Your task to perform on an android device: What is the capital of France? Image 0: 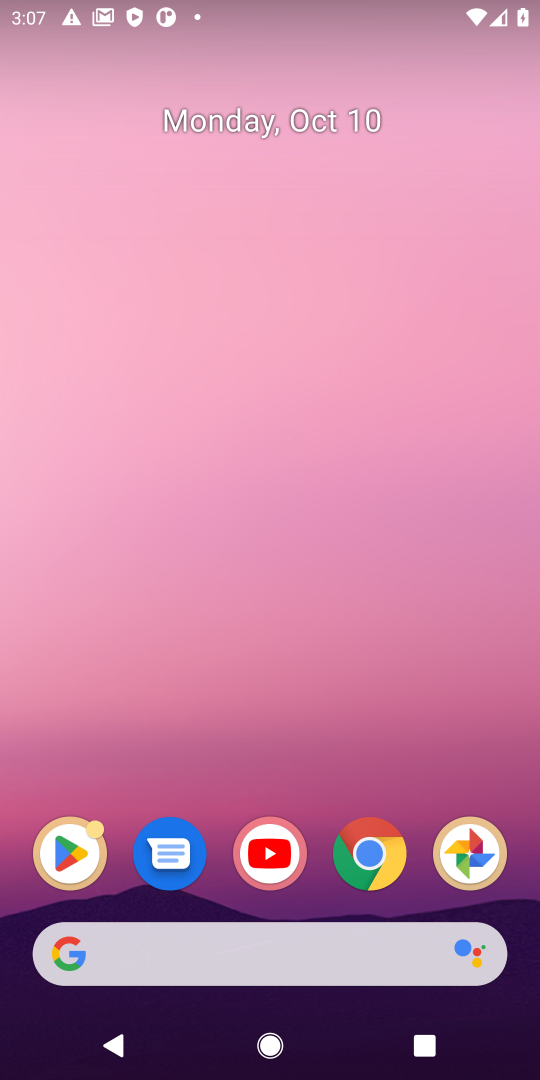
Step 0: click (375, 857)
Your task to perform on an android device: What is the capital of France? Image 1: 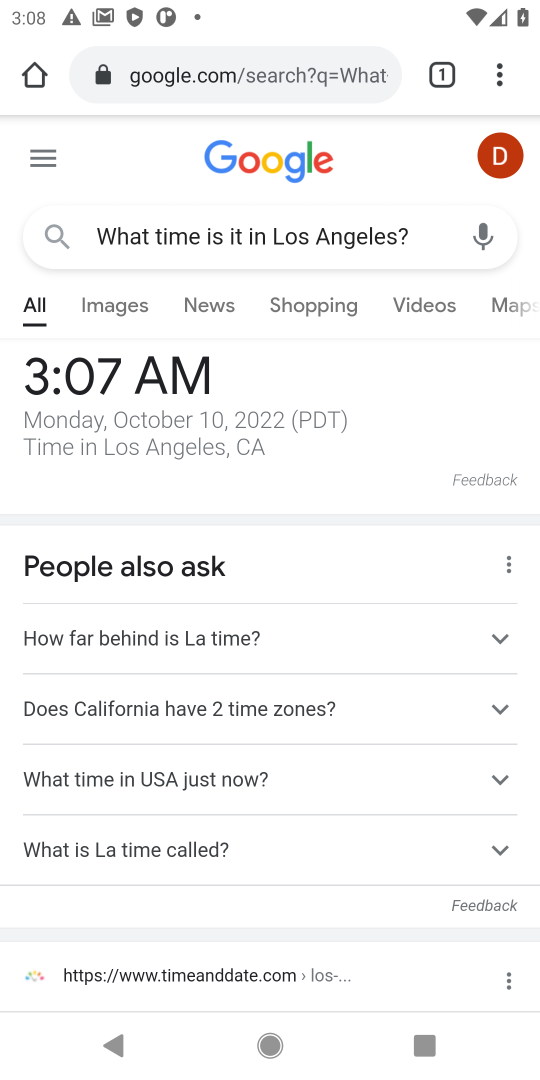
Step 1: click (269, 75)
Your task to perform on an android device: What is the capital of France? Image 2: 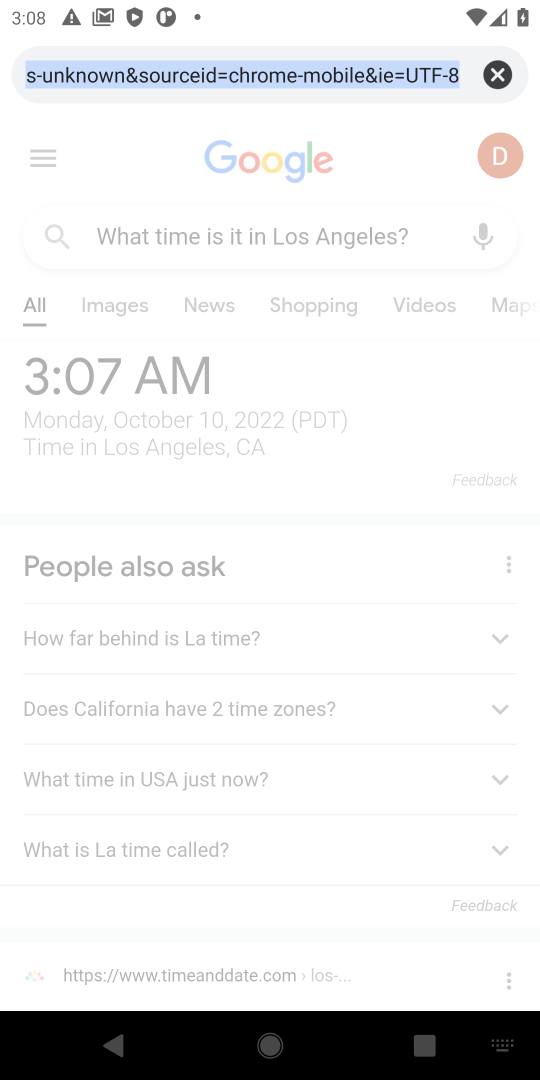
Step 2: type "capital of france"
Your task to perform on an android device: What is the capital of France? Image 3: 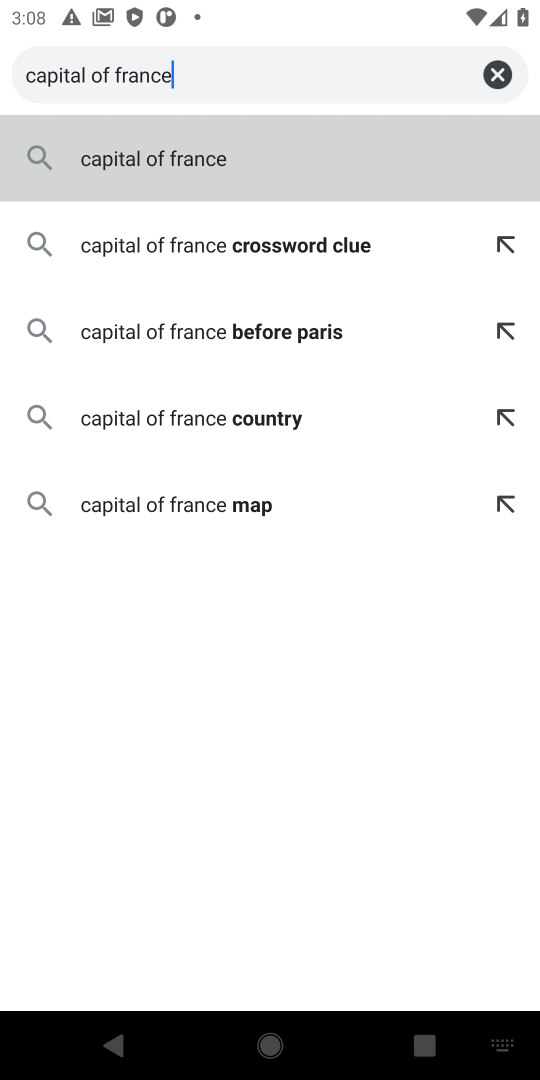
Step 3: click (293, 81)
Your task to perform on an android device: What is the capital of France? Image 4: 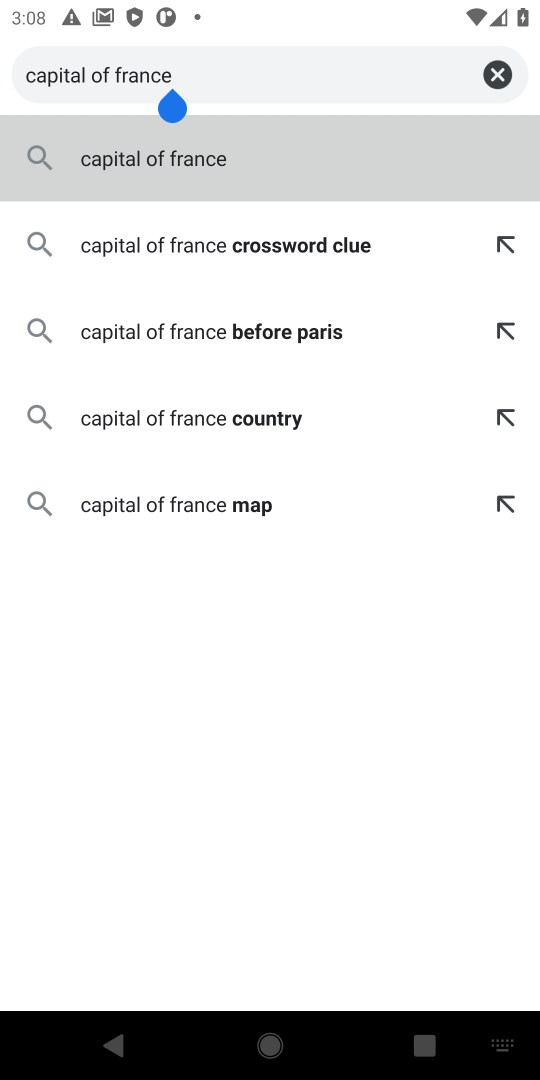
Step 4: click (264, 159)
Your task to perform on an android device: What is the capital of France? Image 5: 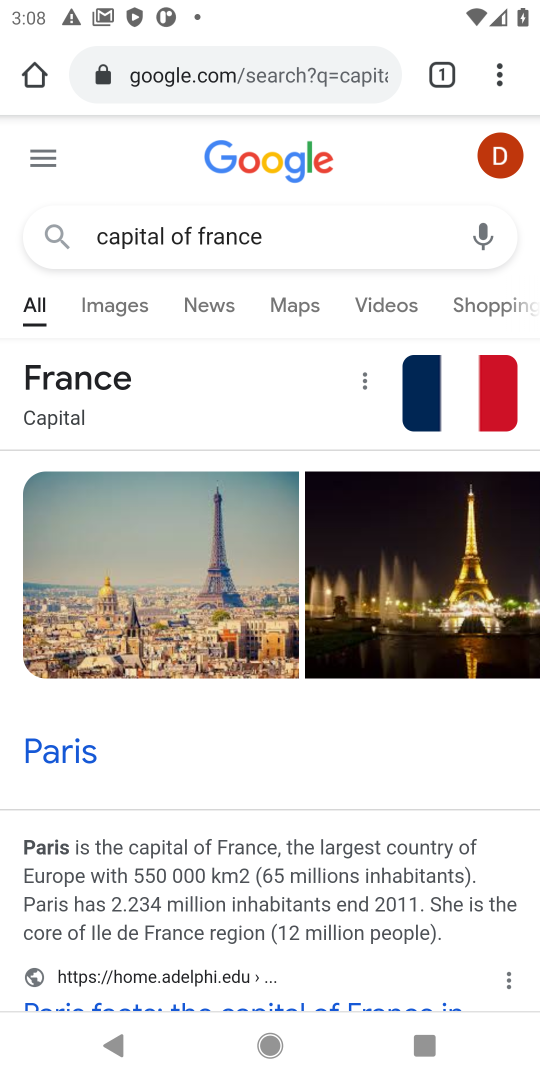
Step 5: task complete